Your task to perform on an android device: check out phone information Image 0: 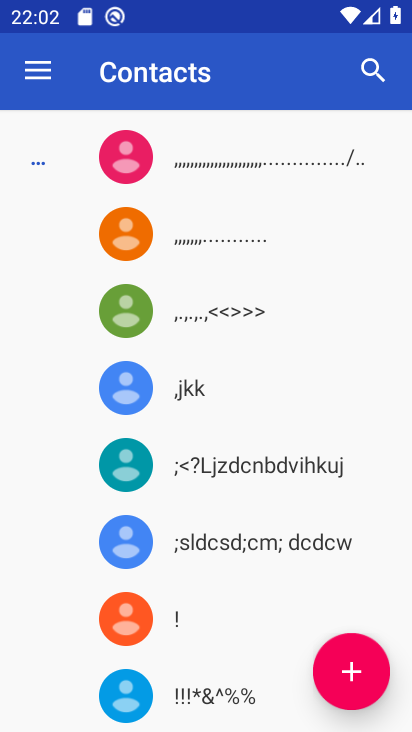
Step 0: press home button
Your task to perform on an android device: check out phone information Image 1: 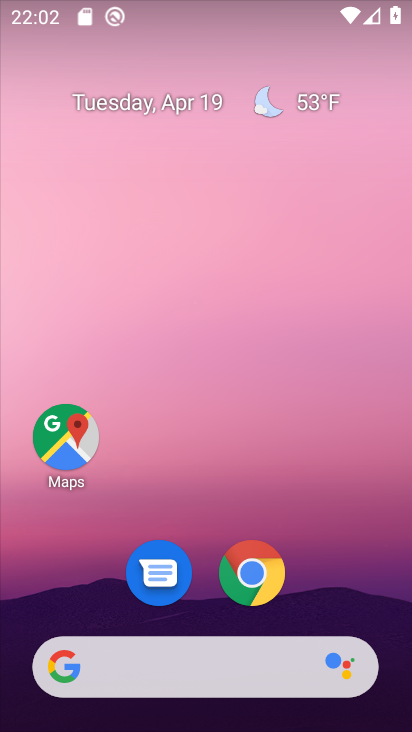
Step 1: drag from (209, 535) to (212, 87)
Your task to perform on an android device: check out phone information Image 2: 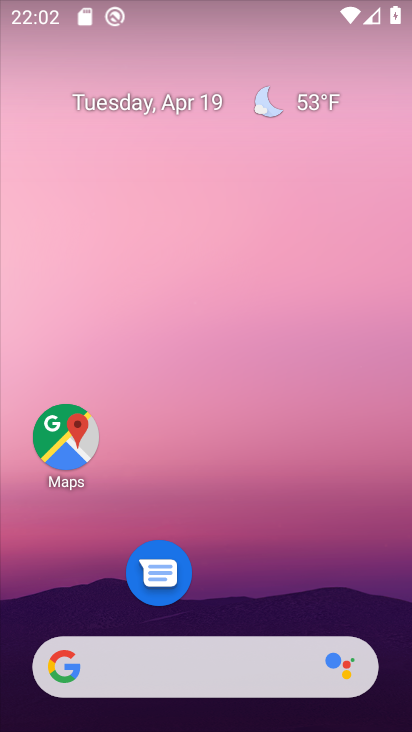
Step 2: drag from (234, 592) to (246, 179)
Your task to perform on an android device: check out phone information Image 3: 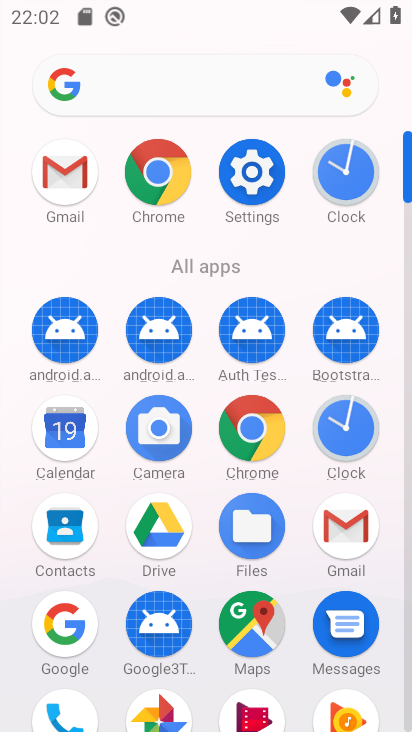
Step 3: drag from (194, 572) to (223, 207)
Your task to perform on an android device: check out phone information Image 4: 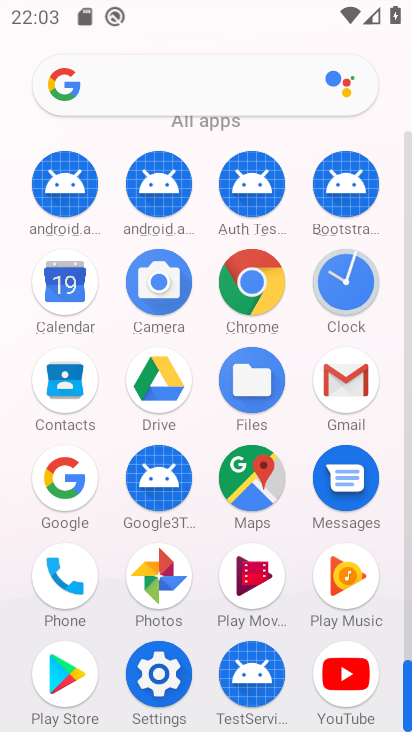
Step 4: click (152, 671)
Your task to perform on an android device: check out phone information Image 5: 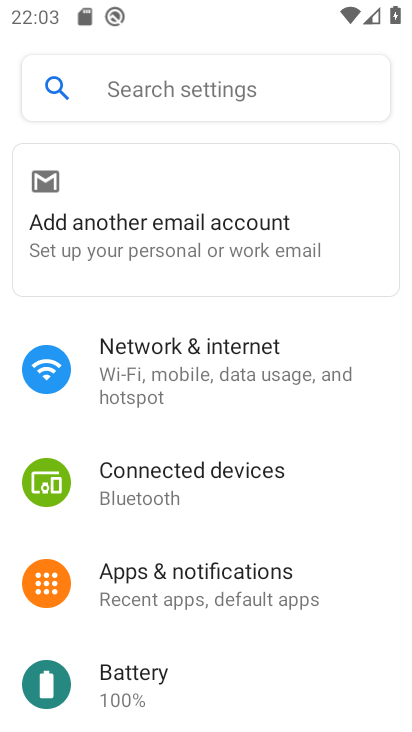
Step 5: drag from (223, 655) to (283, 116)
Your task to perform on an android device: check out phone information Image 6: 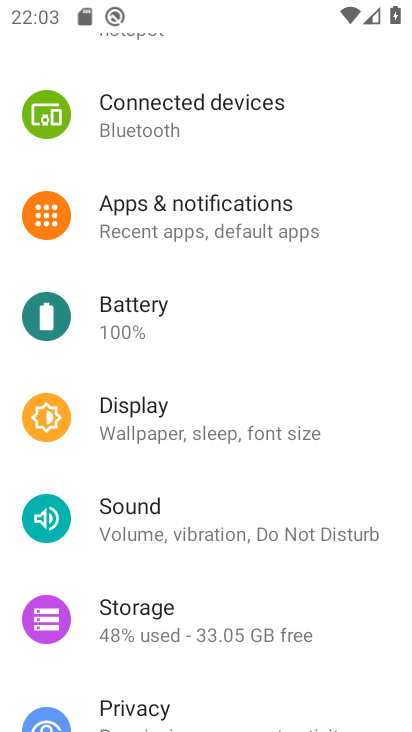
Step 6: drag from (193, 652) to (250, 21)
Your task to perform on an android device: check out phone information Image 7: 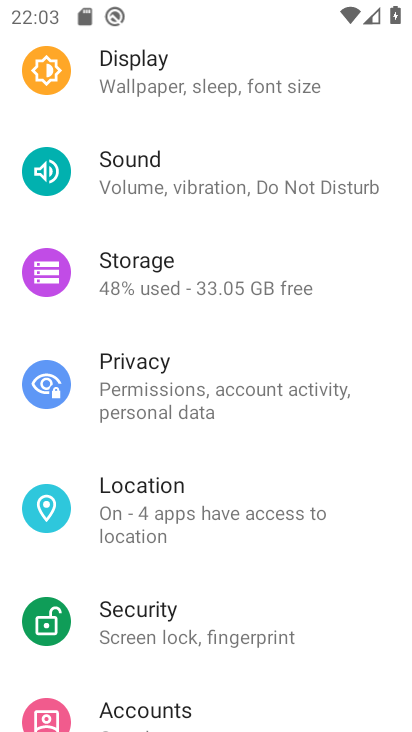
Step 7: drag from (199, 653) to (267, 126)
Your task to perform on an android device: check out phone information Image 8: 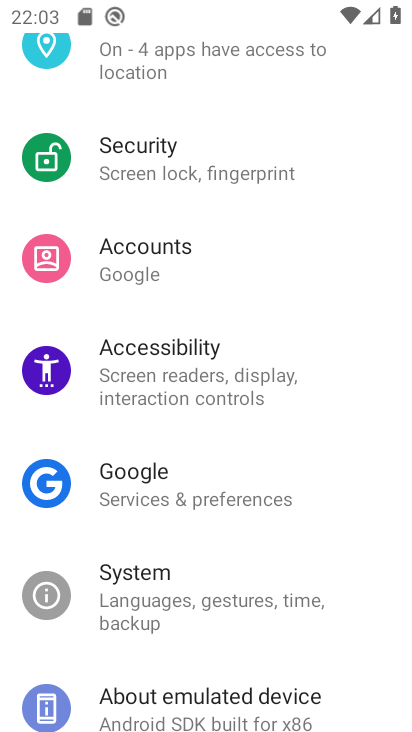
Step 8: drag from (198, 638) to (278, 110)
Your task to perform on an android device: check out phone information Image 9: 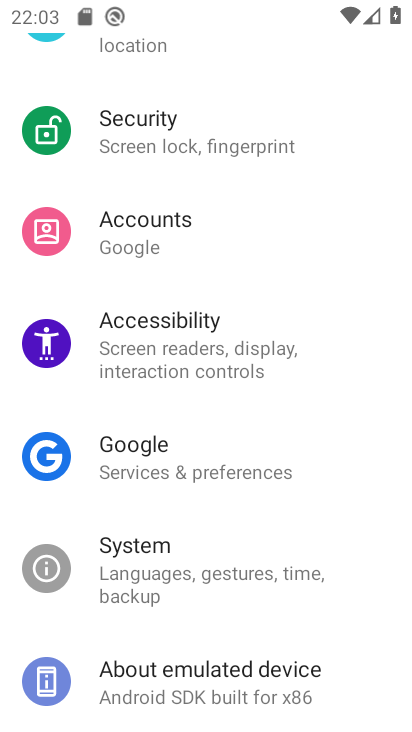
Step 9: click (233, 673)
Your task to perform on an android device: check out phone information Image 10: 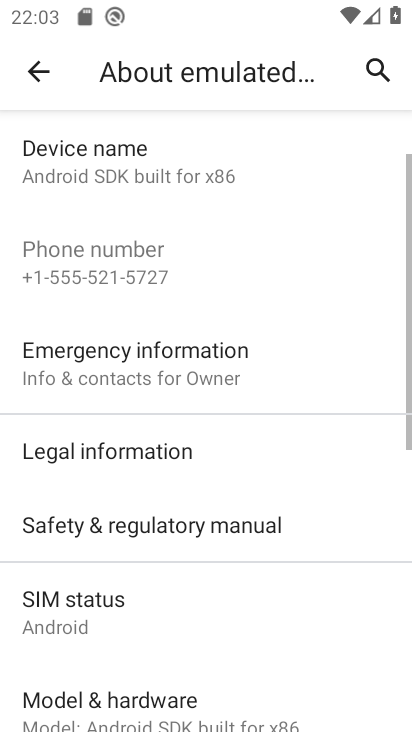
Step 10: task complete